Your task to perform on an android device: all mails in gmail Image 0: 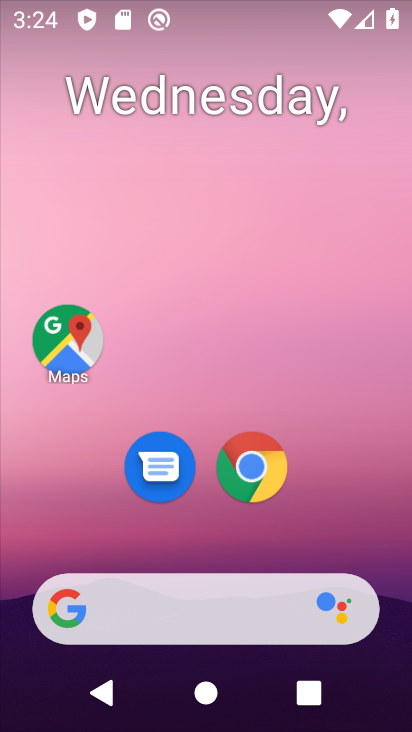
Step 0: drag from (336, 282) to (190, 102)
Your task to perform on an android device: all mails in gmail Image 1: 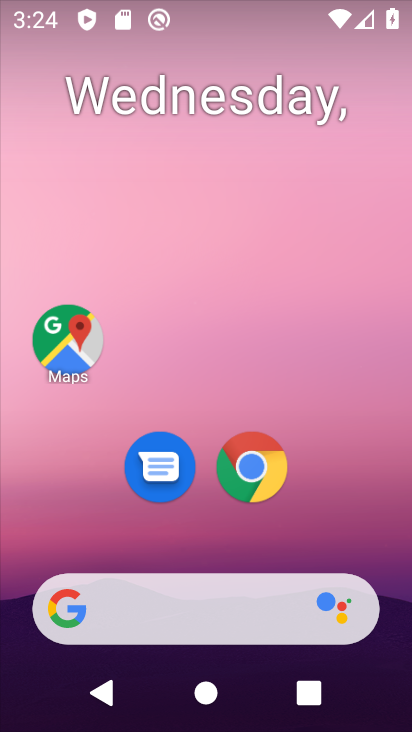
Step 1: drag from (347, 499) to (230, 15)
Your task to perform on an android device: all mails in gmail Image 2: 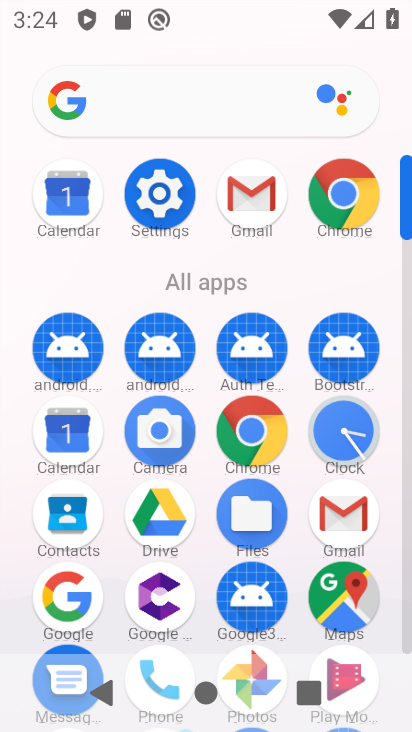
Step 2: click (256, 199)
Your task to perform on an android device: all mails in gmail Image 3: 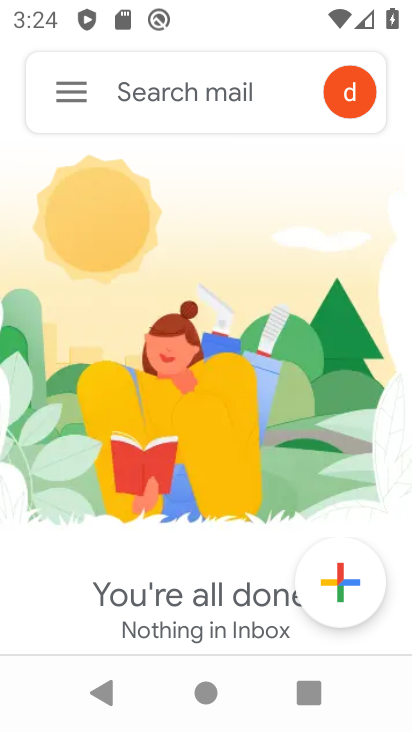
Step 3: click (63, 97)
Your task to perform on an android device: all mails in gmail Image 4: 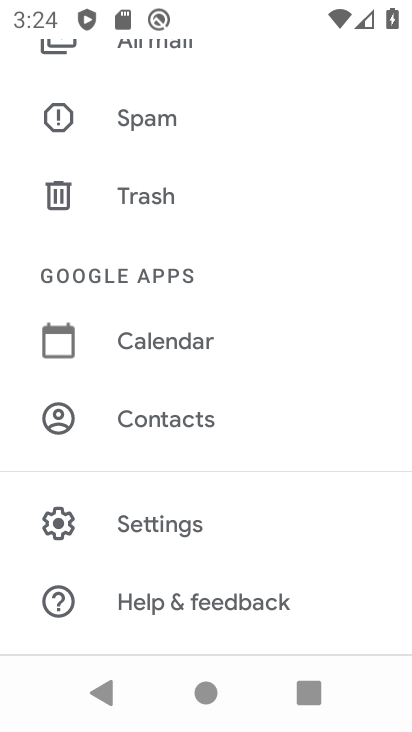
Step 4: click (198, 47)
Your task to perform on an android device: all mails in gmail Image 5: 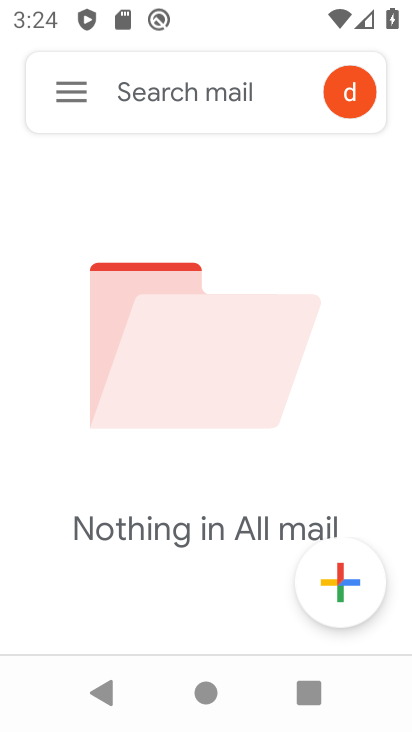
Step 5: task complete